Your task to perform on an android device: Go to privacy settings Image 0: 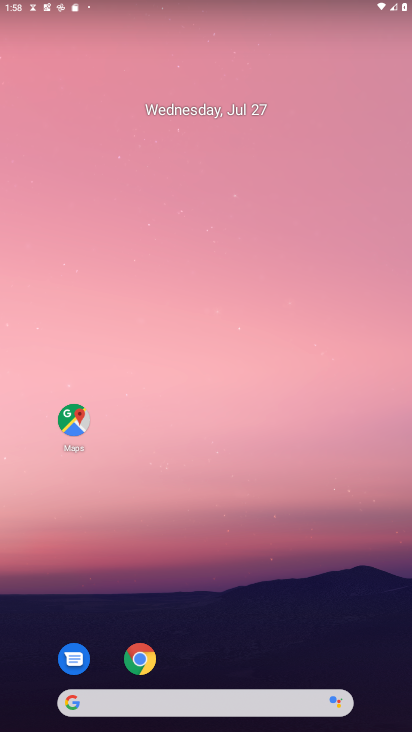
Step 0: drag from (27, 583) to (318, 110)
Your task to perform on an android device: Go to privacy settings Image 1: 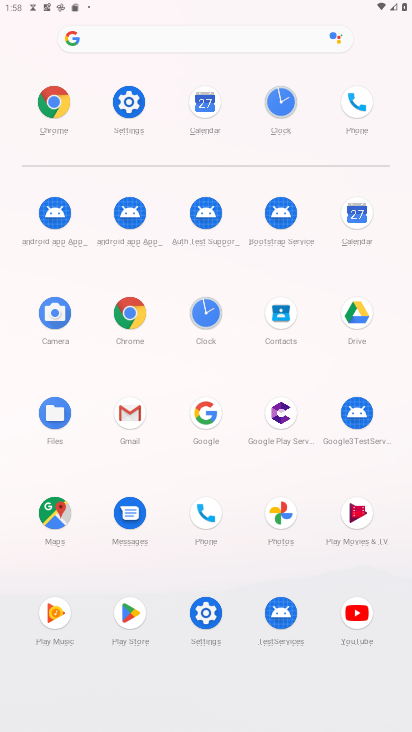
Step 1: click (124, 109)
Your task to perform on an android device: Go to privacy settings Image 2: 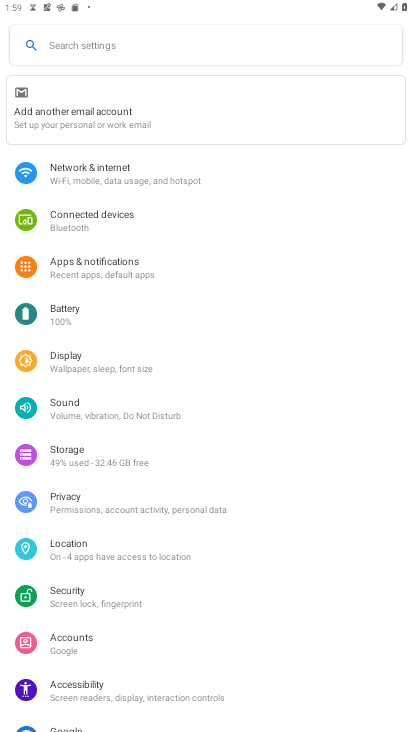
Step 2: click (98, 498)
Your task to perform on an android device: Go to privacy settings Image 3: 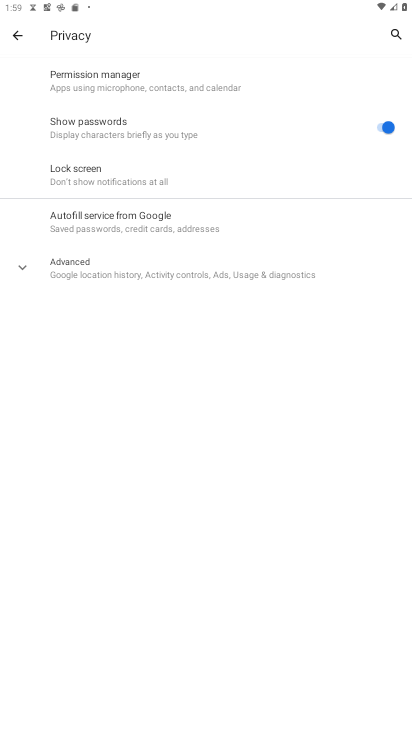
Step 3: task complete